Your task to perform on an android device: turn off wifi Image 0: 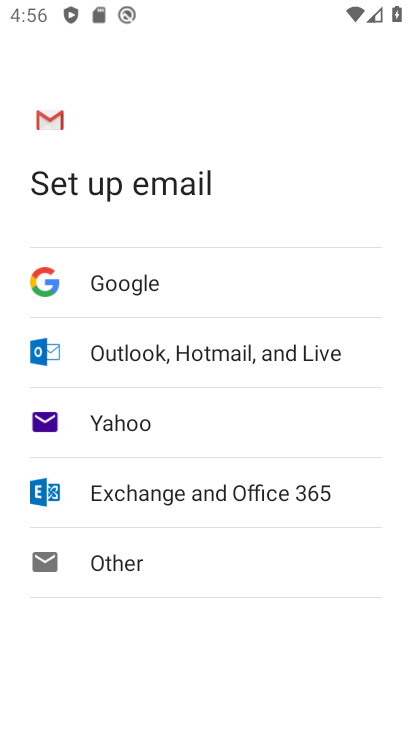
Step 0: press home button
Your task to perform on an android device: turn off wifi Image 1: 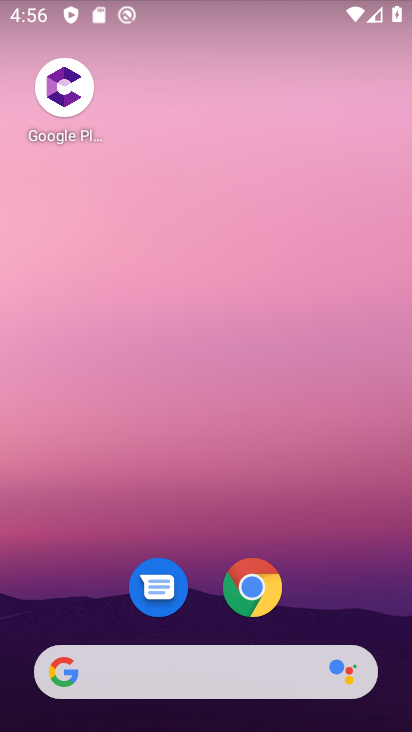
Step 1: drag from (184, 633) to (268, 125)
Your task to perform on an android device: turn off wifi Image 2: 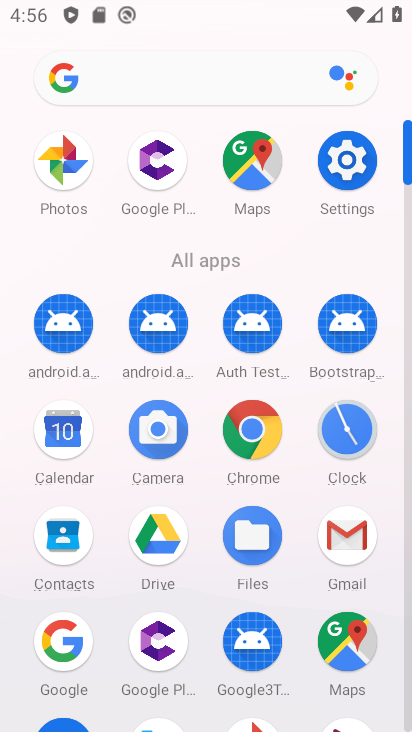
Step 2: click (344, 160)
Your task to perform on an android device: turn off wifi Image 3: 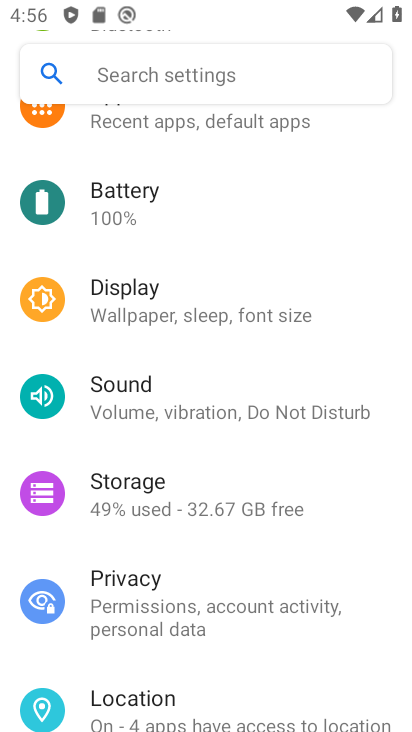
Step 3: drag from (273, 193) to (277, 667)
Your task to perform on an android device: turn off wifi Image 4: 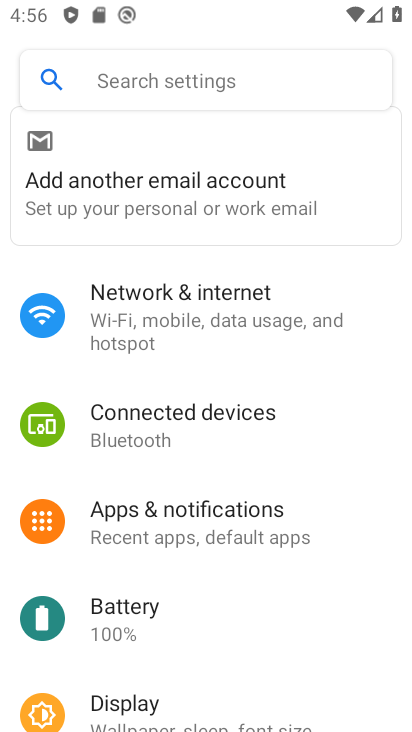
Step 4: click (207, 334)
Your task to perform on an android device: turn off wifi Image 5: 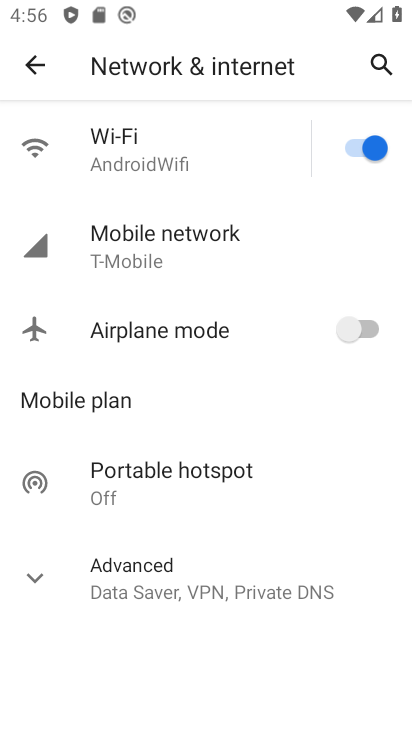
Step 5: click (356, 143)
Your task to perform on an android device: turn off wifi Image 6: 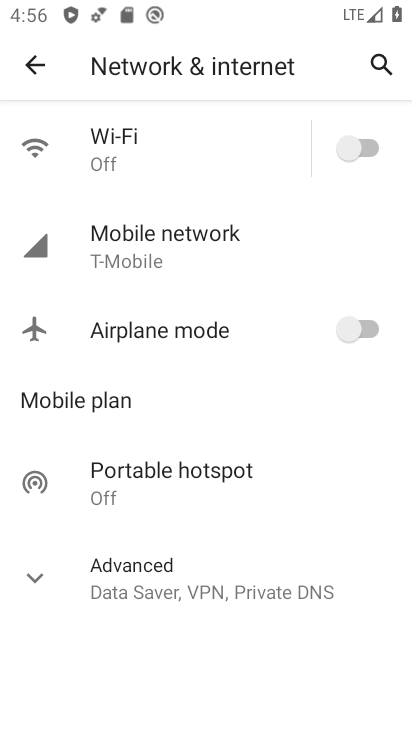
Step 6: task complete